Your task to perform on an android device: show emergency info Image 0: 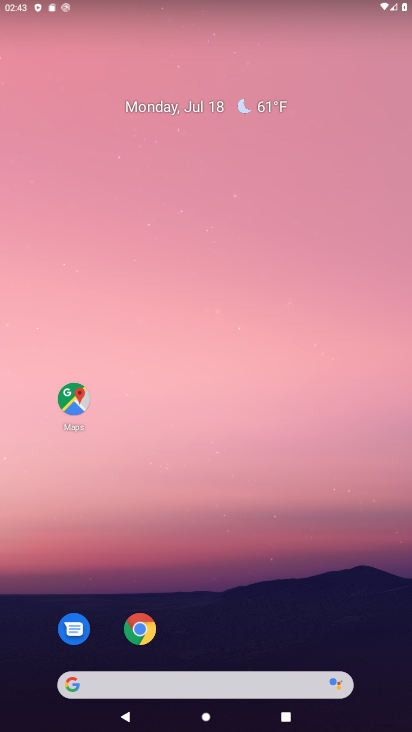
Step 0: drag from (194, 689) to (256, 159)
Your task to perform on an android device: show emergency info Image 1: 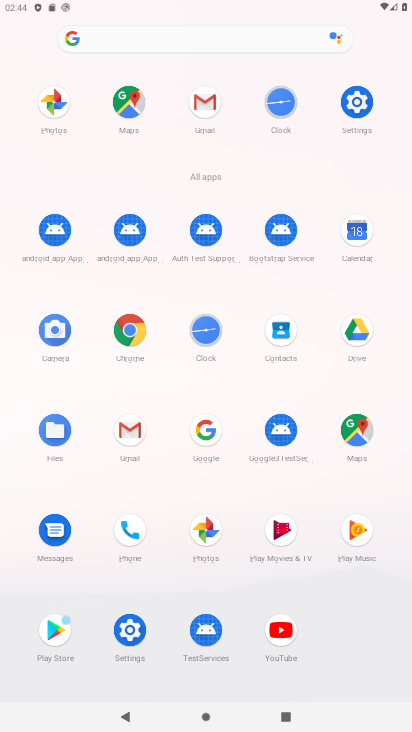
Step 1: click (133, 633)
Your task to perform on an android device: show emergency info Image 2: 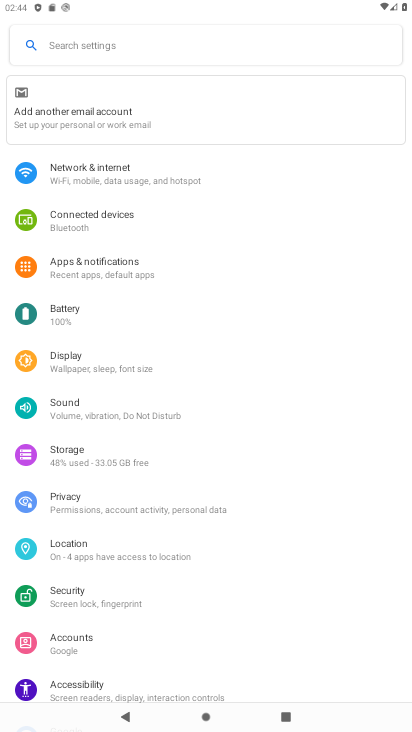
Step 2: drag from (107, 444) to (144, 344)
Your task to perform on an android device: show emergency info Image 3: 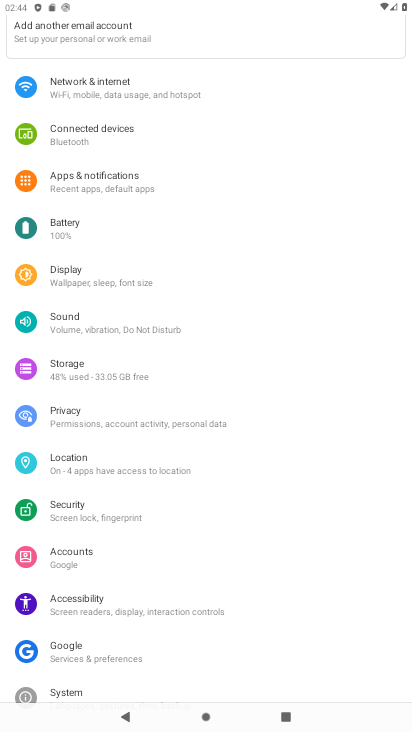
Step 3: drag from (147, 589) to (217, 482)
Your task to perform on an android device: show emergency info Image 4: 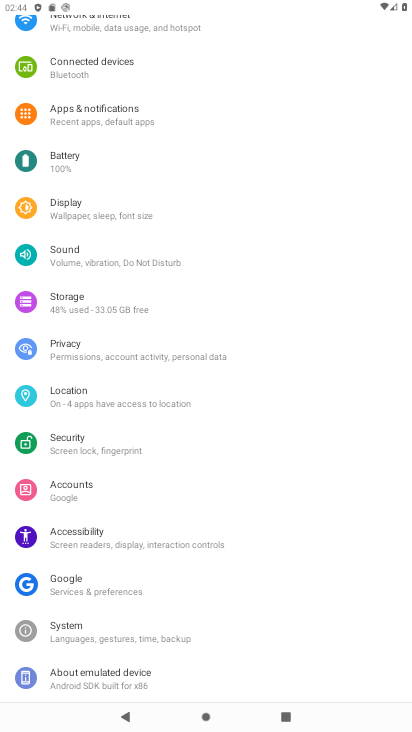
Step 4: click (101, 675)
Your task to perform on an android device: show emergency info Image 5: 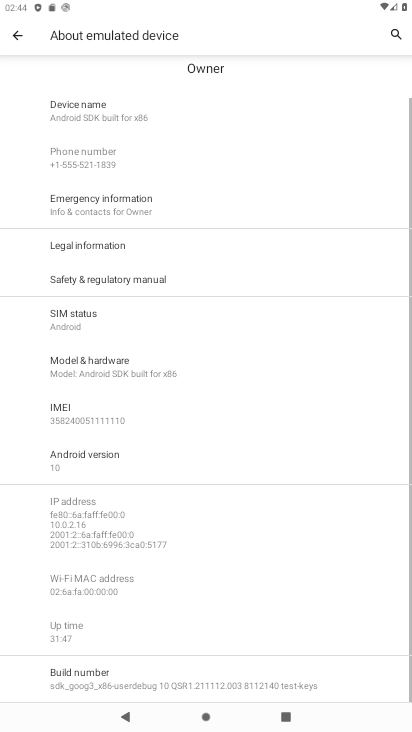
Step 5: click (129, 207)
Your task to perform on an android device: show emergency info Image 6: 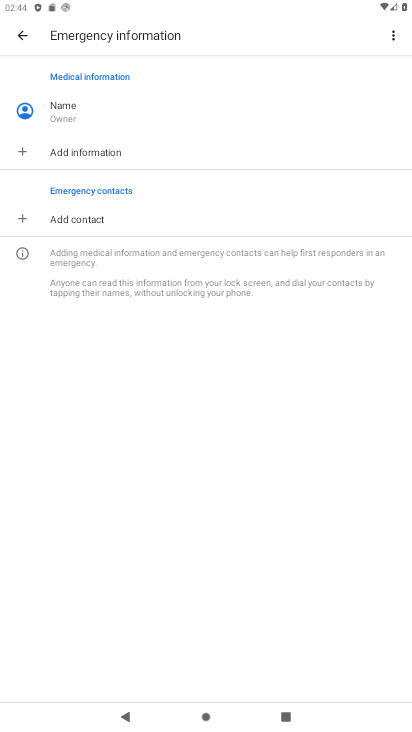
Step 6: task complete